Your task to perform on an android device: Open calendar and show me the third week of next month Image 0: 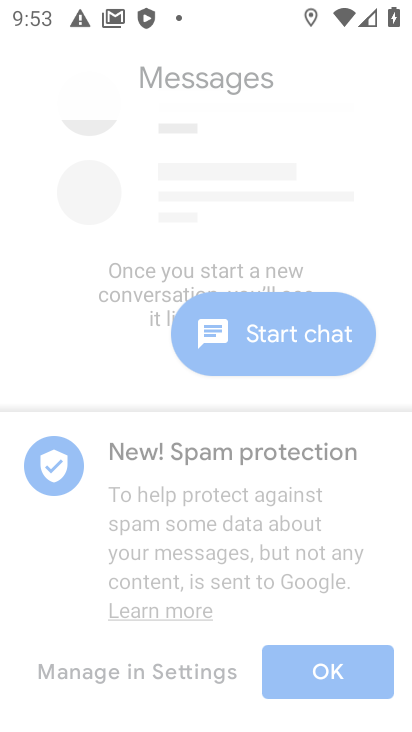
Step 0: drag from (250, 654) to (410, 255)
Your task to perform on an android device: Open calendar and show me the third week of next month Image 1: 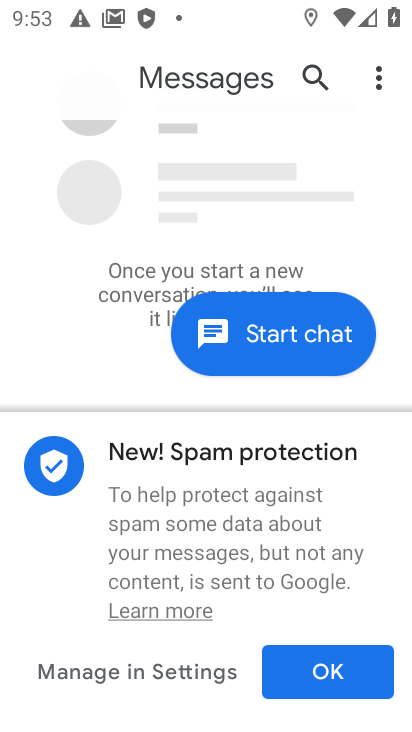
Step 1: press home button
Your task to perform on an android device: Open calendar and show me the third week of next month Image 2: 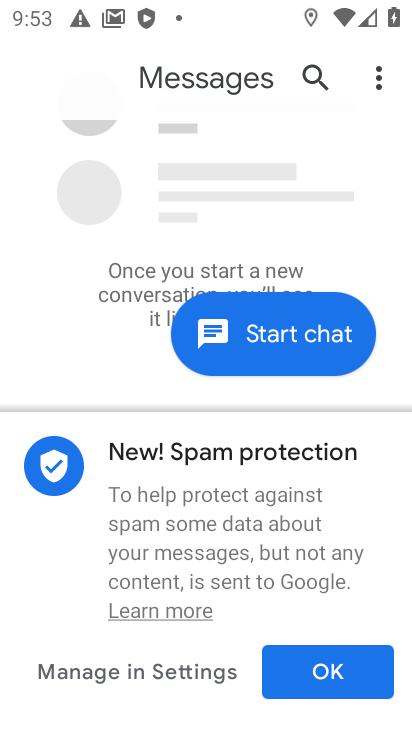
Step 2: drag from (410, 255) to (403, 540)
Your task to perform on an android device: Open calendar and show me the third week of next month Image 3: 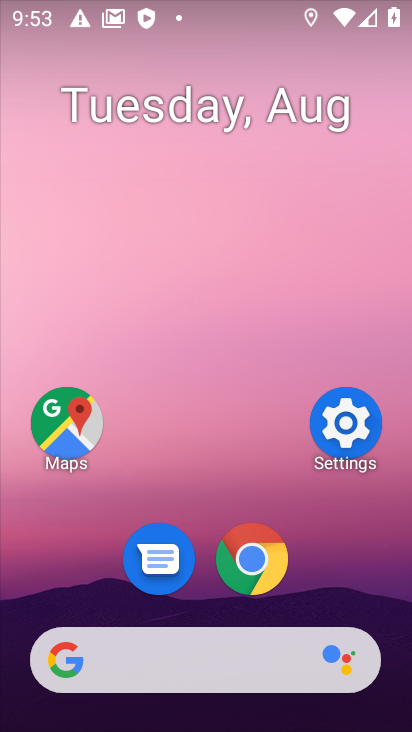
Step 3: drag from (250, 616) to (403, 148)
Your task to perform on an android device: Open calendar and show me the third week of next month Image 4: 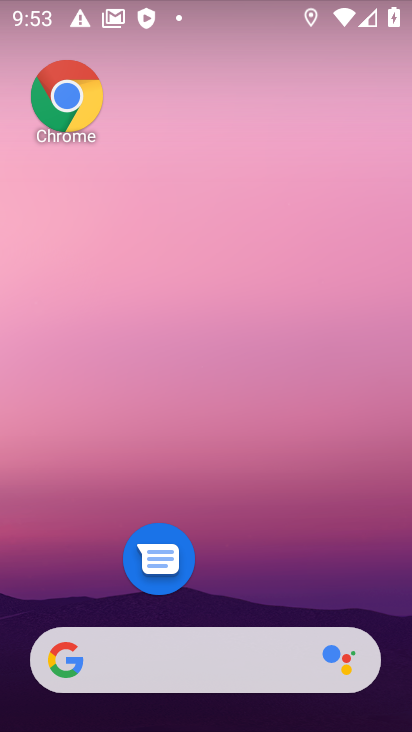
Step 4: drag from (12, 303) to (383, 316)
Your task to perform on an android device: Open calendar and show me the third week of next month Image 5: 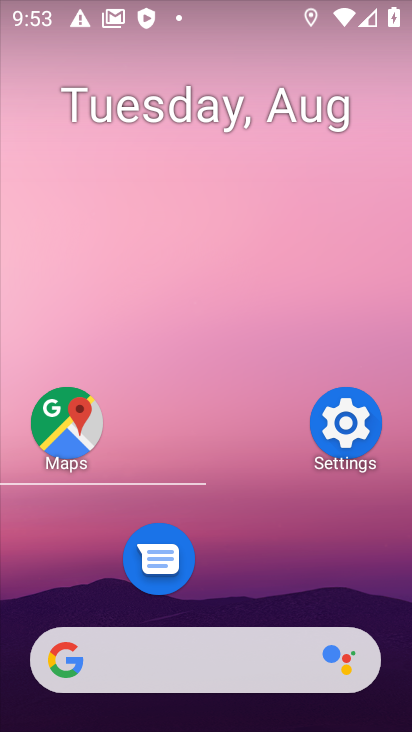
Step 5: press home button
Your task to perform on an android device: Open calendar and show me the third week of next month Image 6: 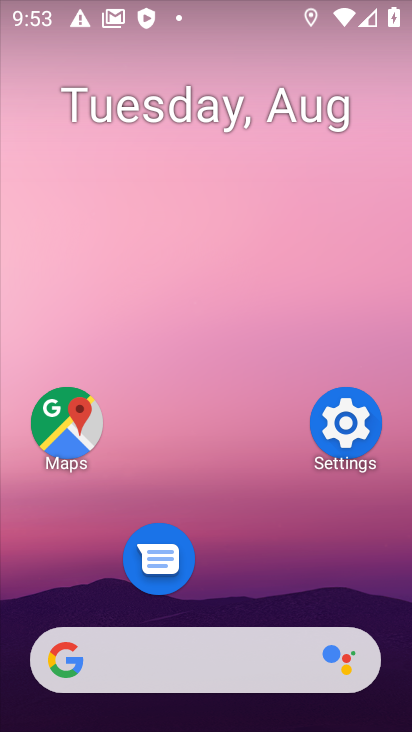
Step 6: drag from (189, 619) to (281, 266)
Your task to perform on an android device: Open calendar and show me the third week of next month Image 7: 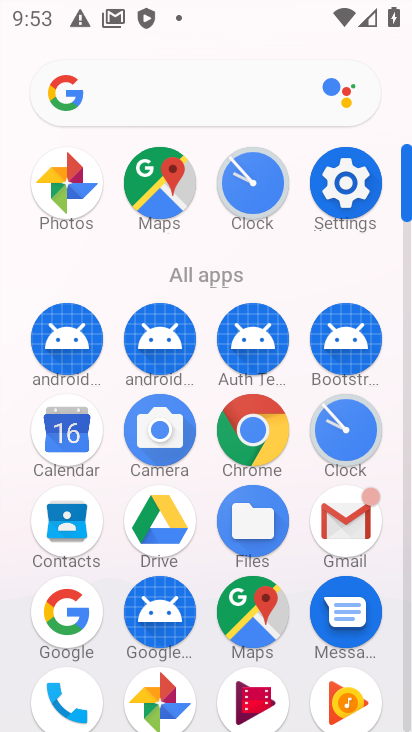
Step 7: click (46, 438)
Your task to perform on an android device: Open calendar and show me the third week of next month Image 8: 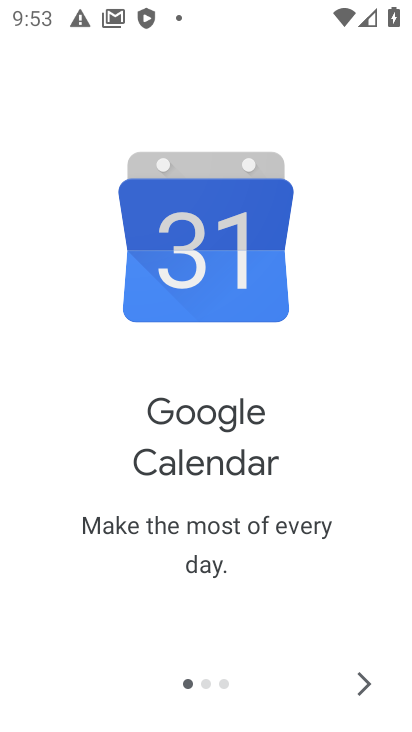
Step 8: click (364, 673)
Your task to perform on an android device: Open calendar and show me the third week of next month Image 9: 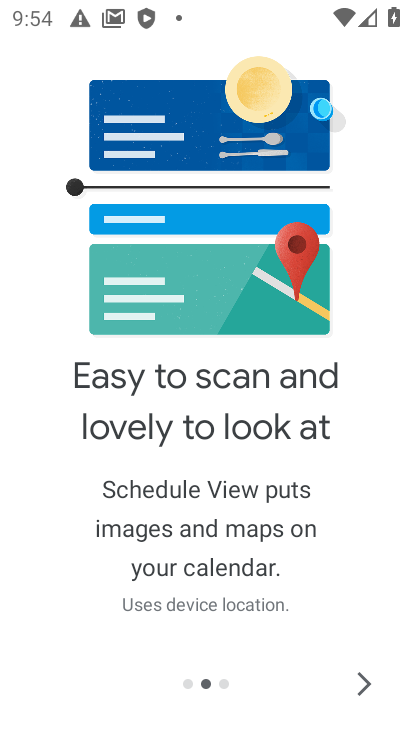
Step 9: click (364, 673)
Your task to perform on an android device: Open calendar and show me the third week of next month Image 10: 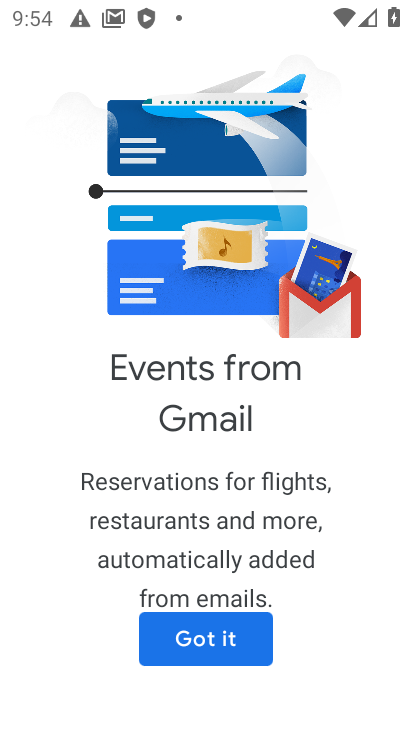
Step 10: click (217, 649)
Your task to perform on an android device: Open calendar and show me the third week of next month Image 11: 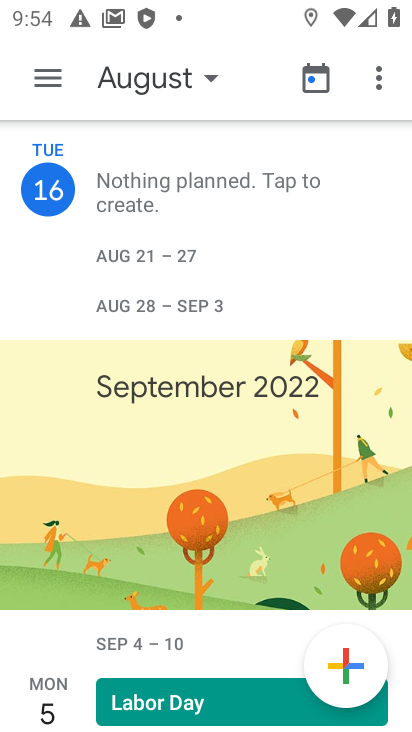
Step 11: click (162, 82)
Your task to perform on an android device: Open calendar and show me the third week of next month Image 12: 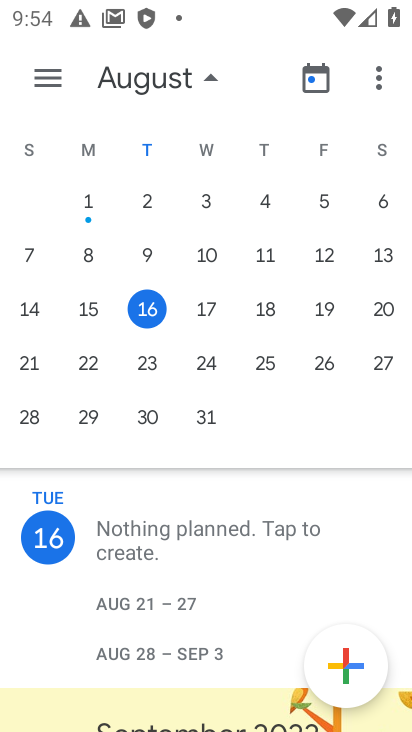
Step 12: drag from (360, 282) to (31, 254)
Your task to perform on an android device: Open calendar and show me the third week of next month Image 13: 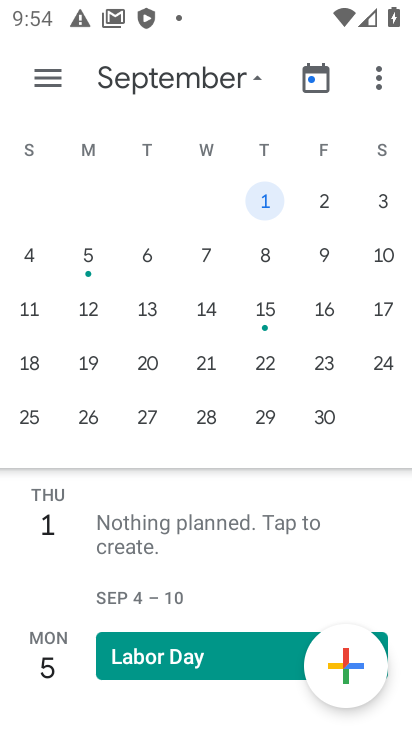
Step 13: click (33, 306)
Your task to perform on an android device: Open calendar and show me the third week of next month Image 14: 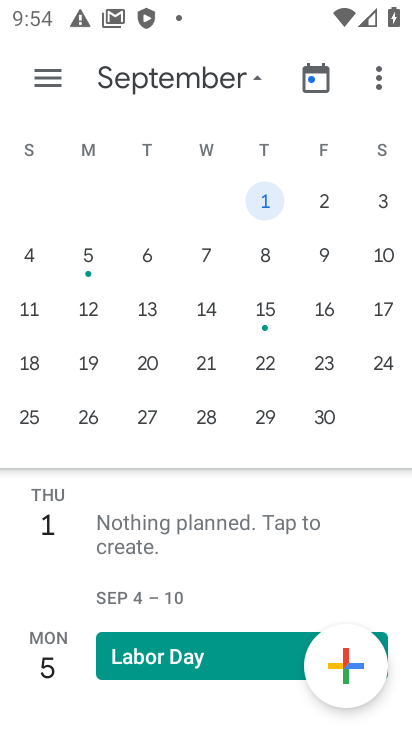
Step 14: click (28, 311)
Your task to perform on an android device: Open calendar and show me the third week of next month Image 15: 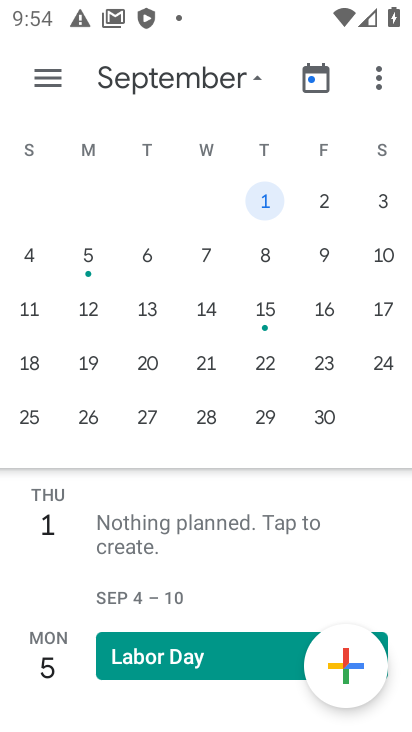
Step 15: click (40, 310)
Your task to perform on an android device: Open calendar and show me the third week of next month Image 16: 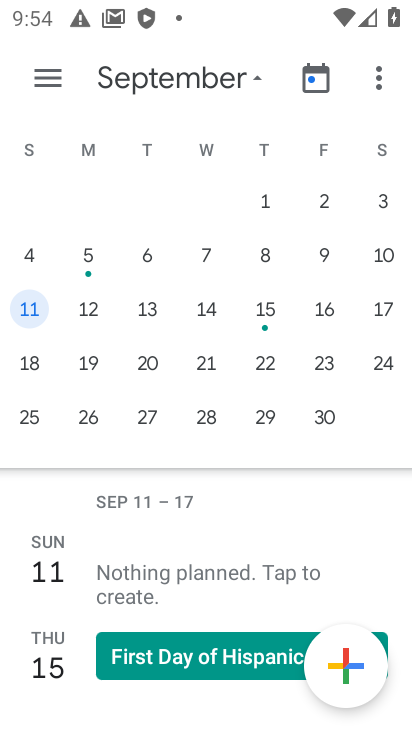
Step 16: click (56, 75)
Your task to perform on an android device: Open calendar and show me the third week of next month Image 17: 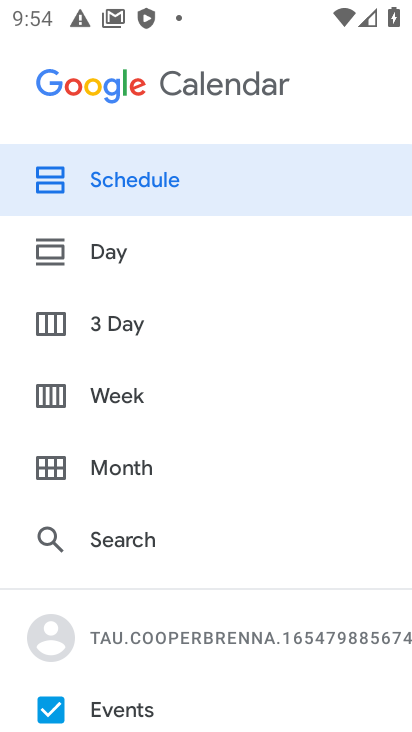
Step 17: click (117, 394)
Your task to perform on an android device: Open calendar and show me the third week of next month Image 18: 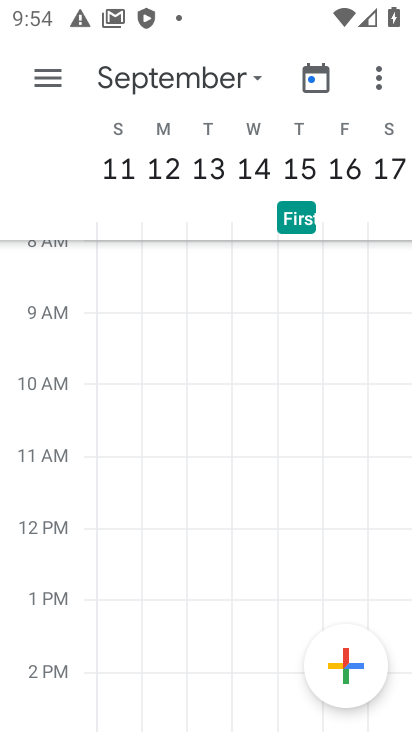
Step 18: task complete